Your task to perform on an android device: Open Yahoo.com Image 0: 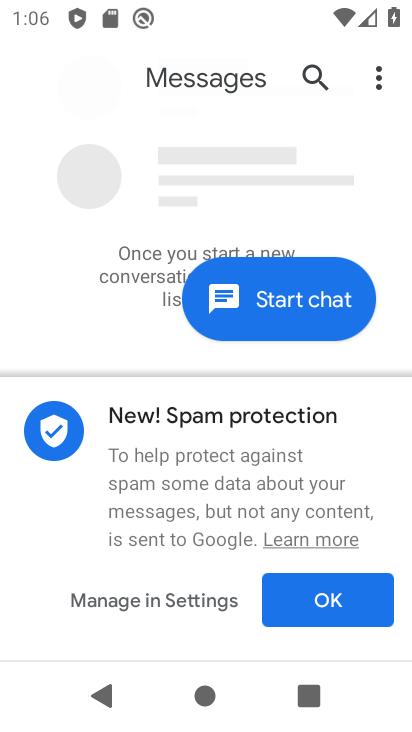
Step 0: press back button
Your task to perform on an android device: Open Yahoo.com Image 1: 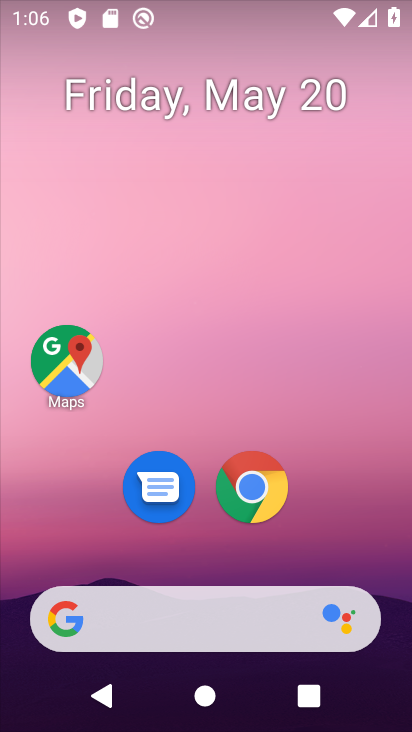
Step 1: drag from (352, 547) to (315, 36)
Your task to perform on an android device: Open Yahoo.com Image 2: 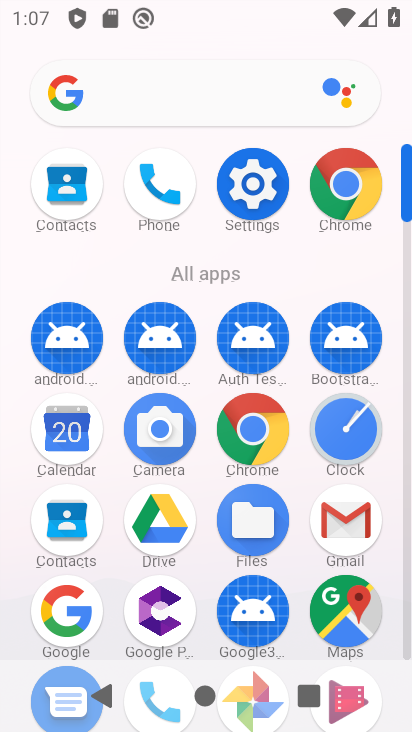
Step 2: drag from (14, 615) to (52, 246)
Your task to perform on an android device: Open Yahoo.com Image 3: 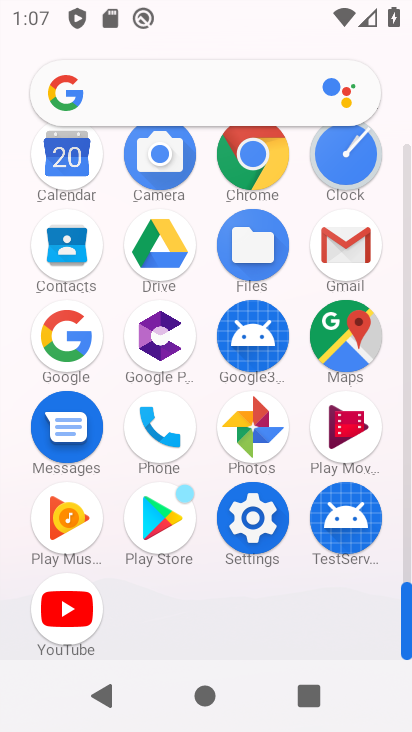
Step 3: click (251, 149)
Your task to perform on an android device: Open Yahoo.com Image 4: 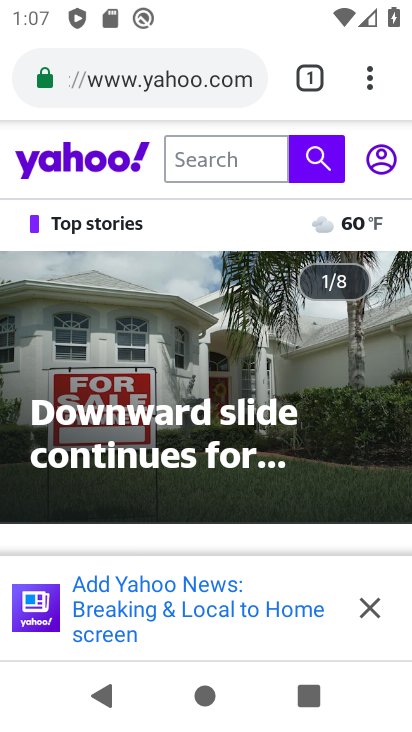
Step 4: task complete